Your task to perform on an android device: stop showing notifications on the lock screen Image 0: 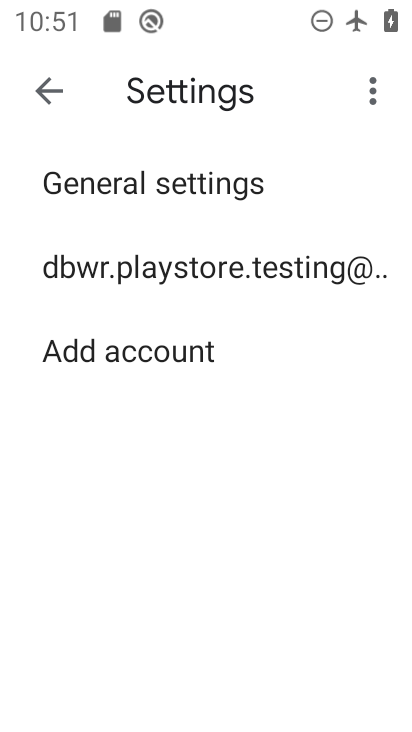
Step 0: press home button
Your task to perform on an android device: stop showing notifications on the lock screen Image 1: 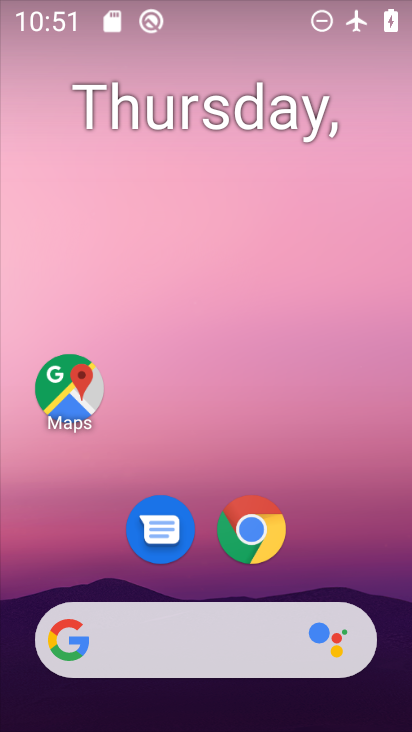
Step 1: drag from (179, 699) to (215, 42)
Your task to perform on an android device: stop showing notifications on the lock screen Image 2: 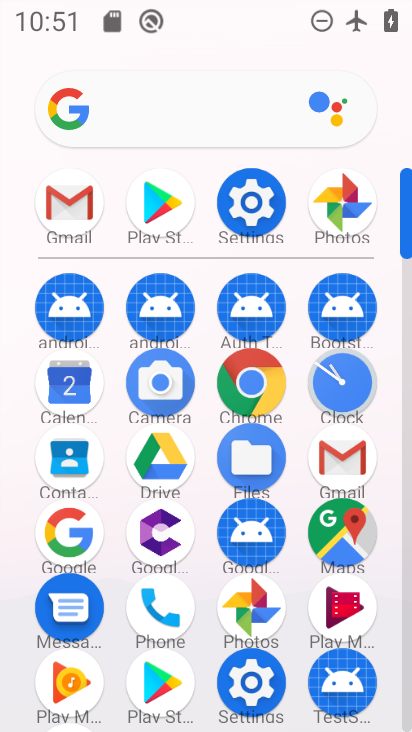
Step 2: click (255, 207)
Your task to perform on an android device: stop showing notifications on the lock screen Image 3: 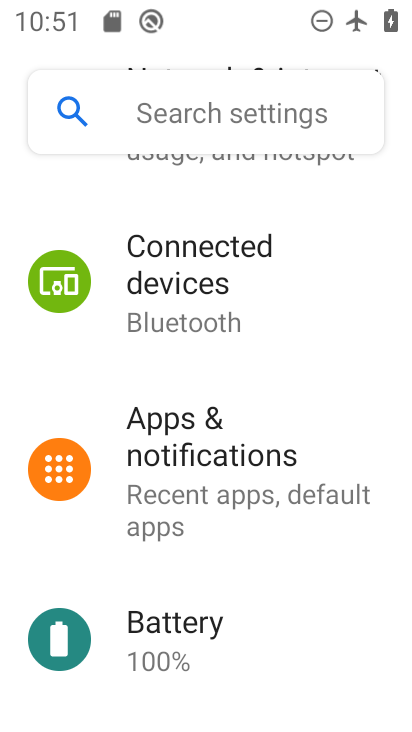
Step 3: click (274, 491)
Your task to perform on an android device: stop showing notifications on the lock screen Image 4: 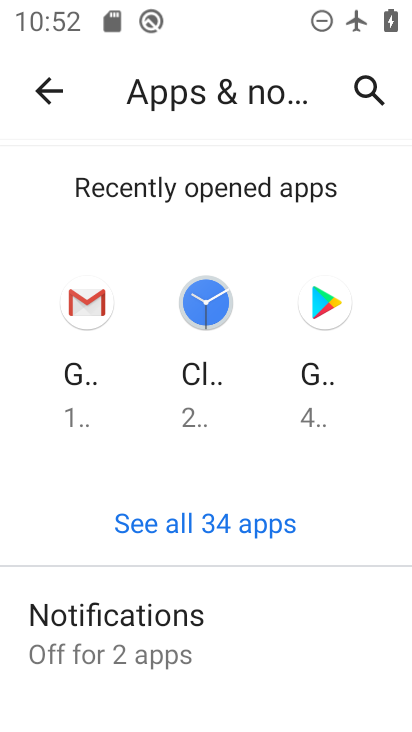
Step 4: click (160, 638)
Your task to perform on an android device: stop showing notifications on the lock screen Image 5: 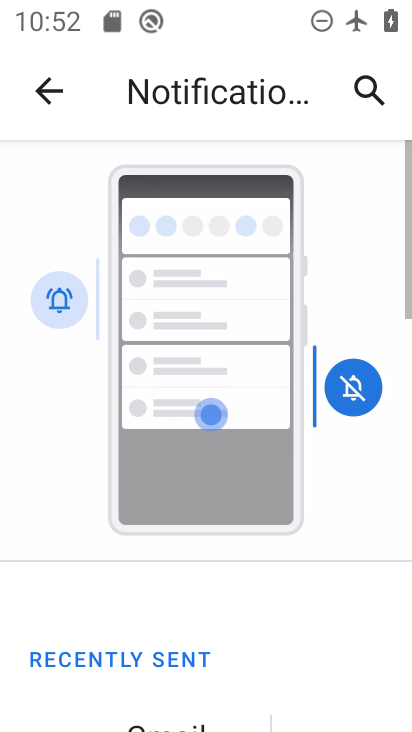
Step 5: drag from (215, 497) to (209, 21)
Your task to perform on an android device: stop showing notifications on the lock screen Image 6: 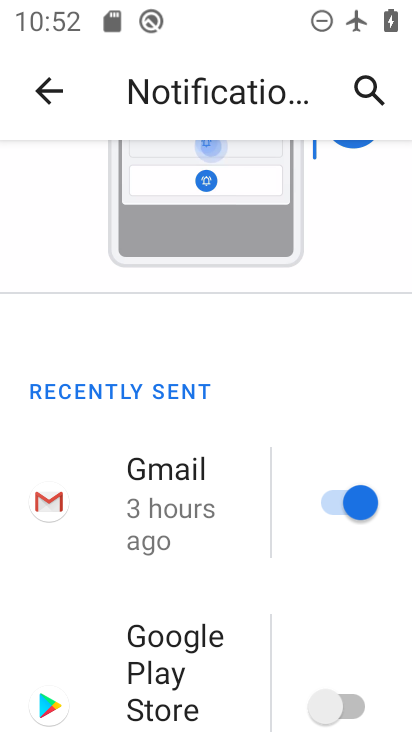
Step 6: drag from (214, 630) to (214, 4)
Your task to perform on an android device: stop showing notifications on the lock screen Image 7: 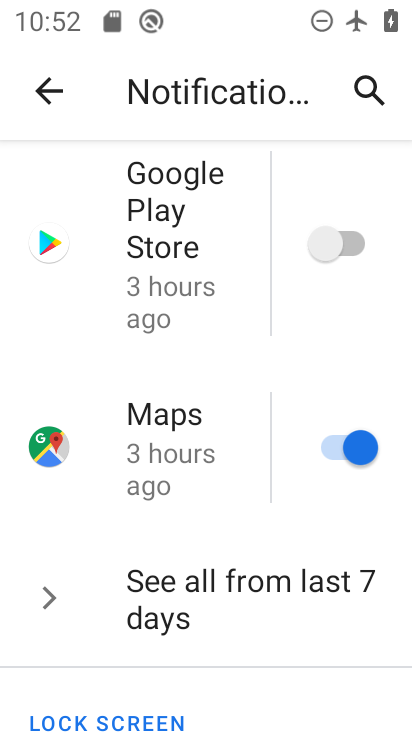
Step 7: drag from (201, 638) to (204, 35)
Your task to perform on an android device: stop showing notifications on the lock screen Image 8: 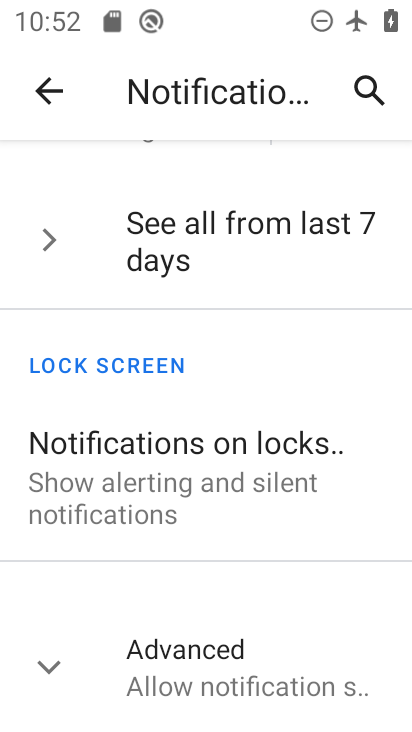
Step 8: click (181, 485)
Your task to perform on an android device: stop showing notifications on the lock screen Image 9: 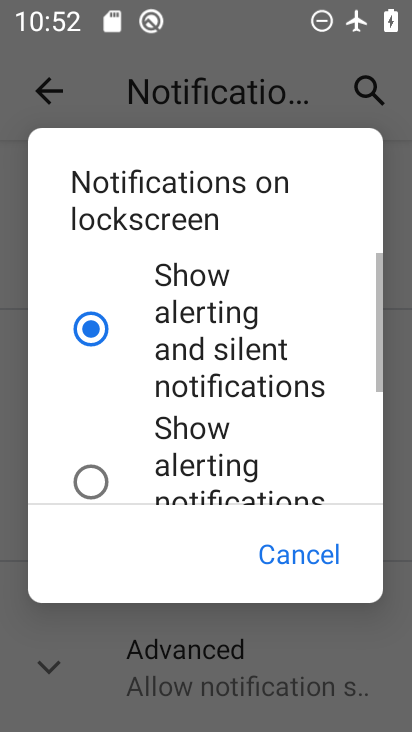
Step 9: drag from (208, 439) to (145, 5)
Your task to perform on an android device: stop showing notifications on the lock screen Image 10: 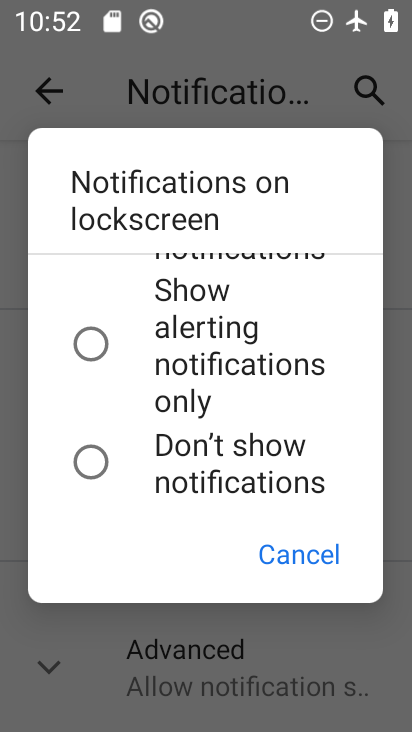
Step 10: drag from (213, 491) to (261, 19)
Your task to perform on an android device: stop showing notifications on the lock screen Image 11: 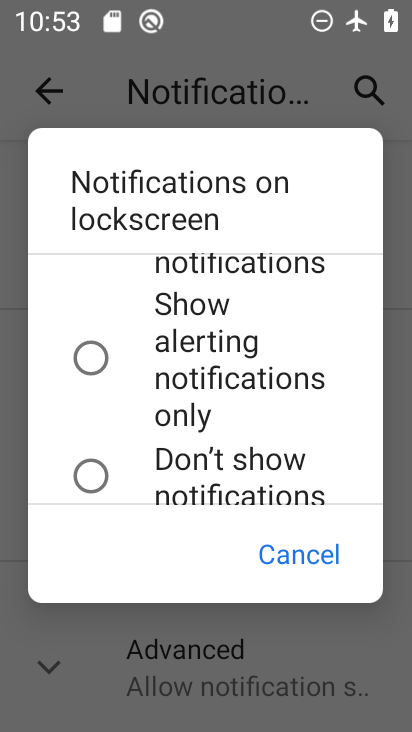
Step 11: drag from (240, 470) to (179, 41)
Your task to perform on an android device: stop showing notifications on the lock screen Image 12: 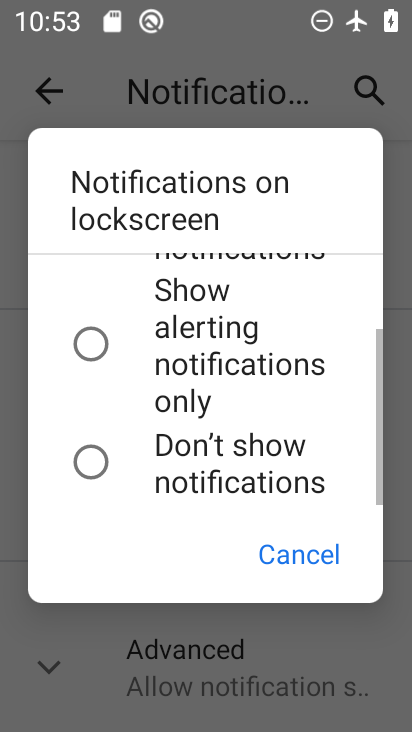
Step 12: click (97, 466)
Your task to perform on an android device: stop showing notifications on the lock screen Image 13: 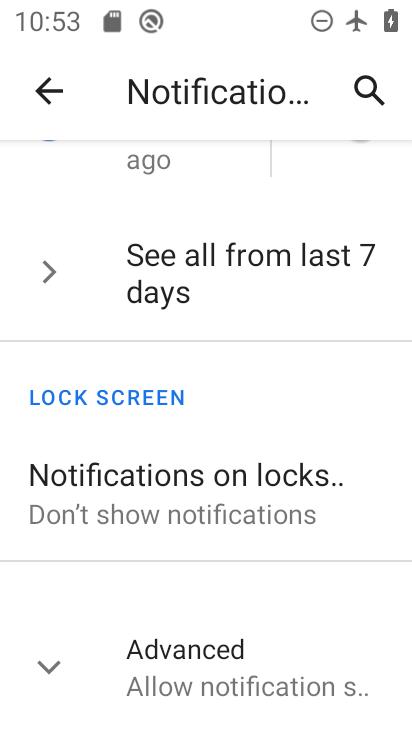
Step 13: task complete